Your task to perform on an android device: change notifications settings Image 0: 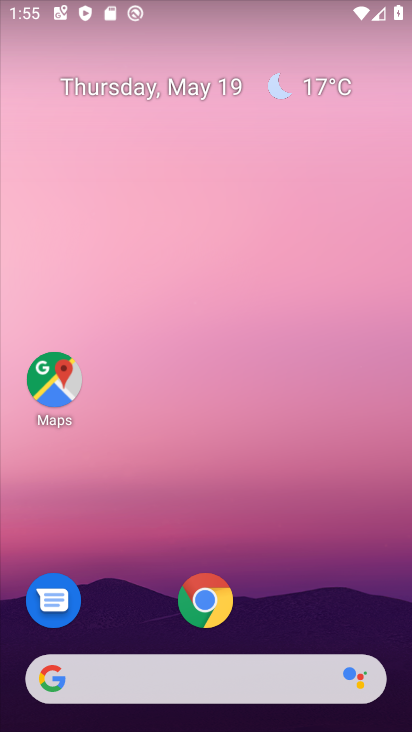
Step 0: drag from (306, 609) to (265, 368)
Your task to perform on an android device: change notifications settings Image 1: 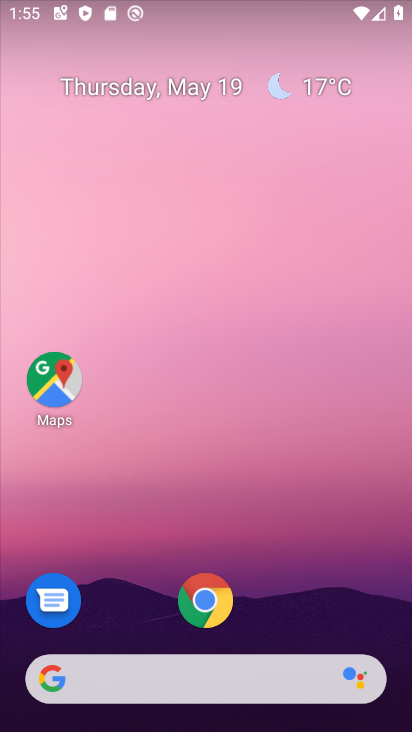
Step 1: drag from (326, 591) to (318, 207)
Your task to perform on an android device: change notifications settings Image 2: 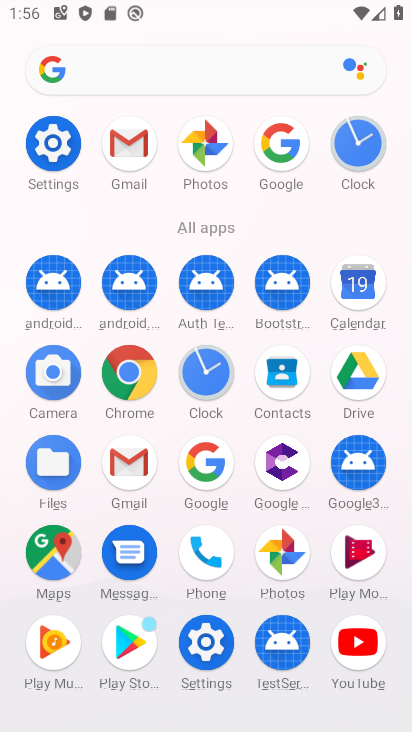
Step 2: click (208, 642)
Your task to perform on an android device: change notifications settings Image 3: 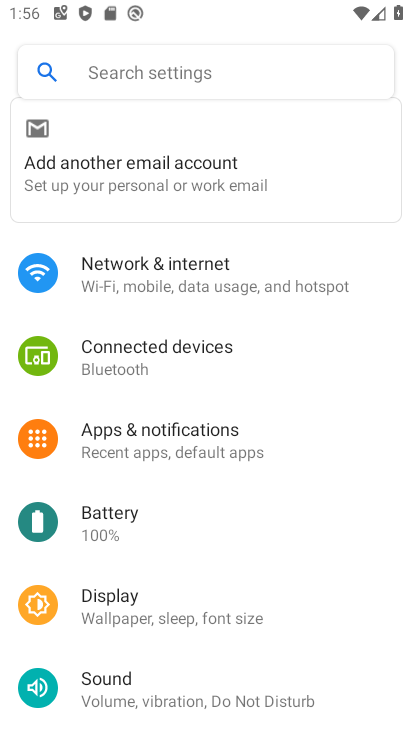
Step 3: drag from (162, 661) to (150, 392)
Your task to perform on an android device: change notifications settings Image 4: 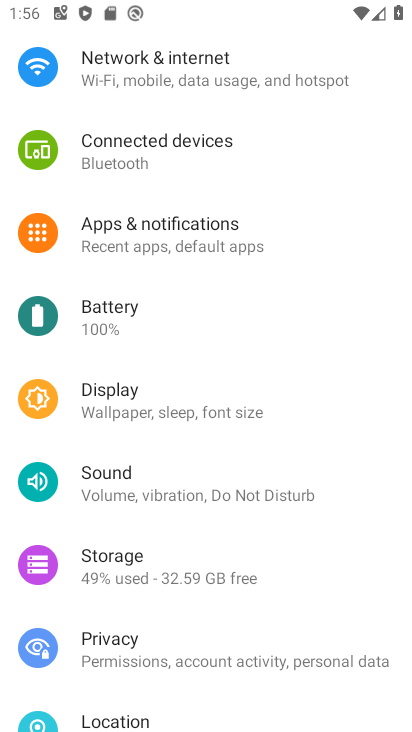
Step 4: click (131, 239)
Your task to perform on an android device: change notifications settings Image 5: 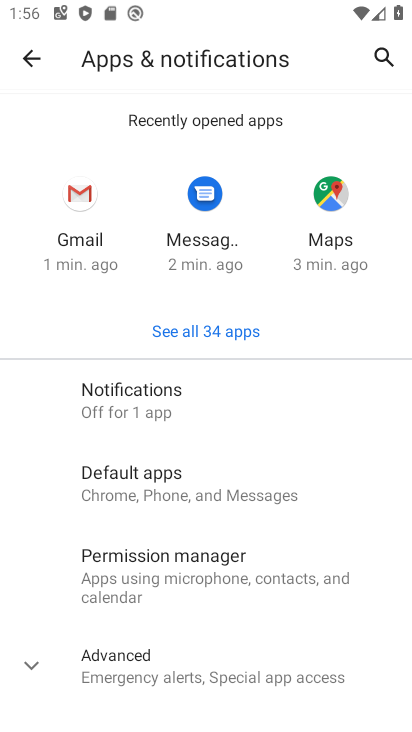
Step 5: click (100, 411)
Your task to perform on an android device: change notifications settings Image 6: 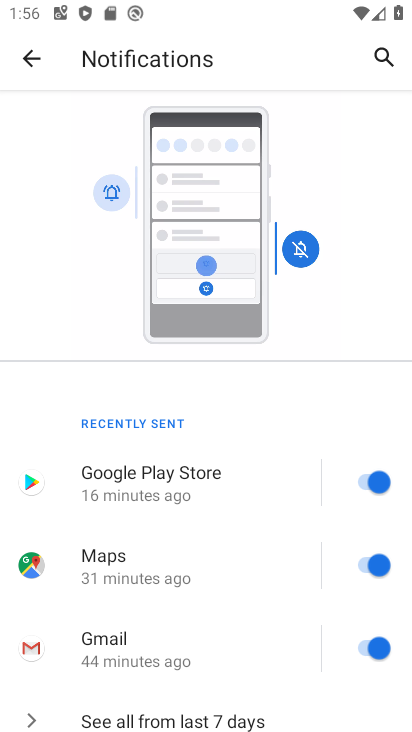
Step 6: drag from (219, 595) to (226, 296)
Your task to perform on an android device: change notifications settings Image 7: 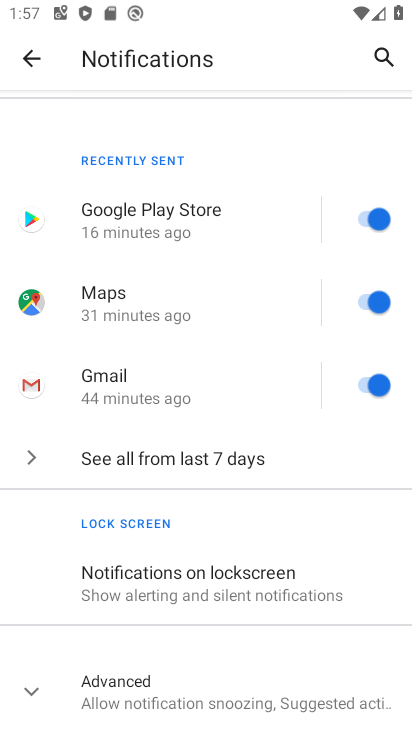
Step 7: click (216, 685)
Your task to perform on an android device: change notifications settings Image 8: 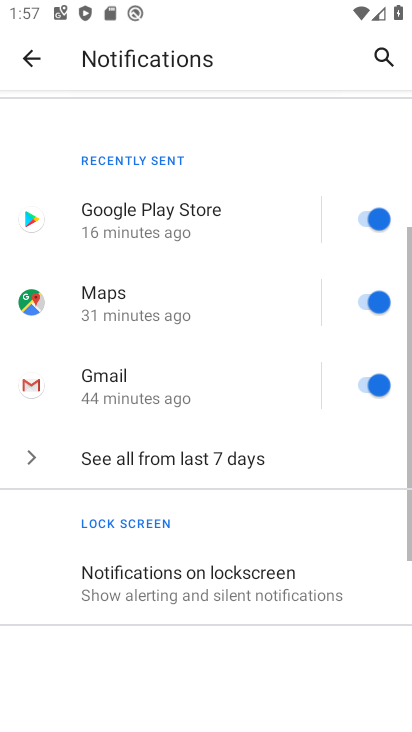
Step 8: drag from (210, 669) to (203, 281)
Your task to perform on an android device: change notifications settings Image 9: 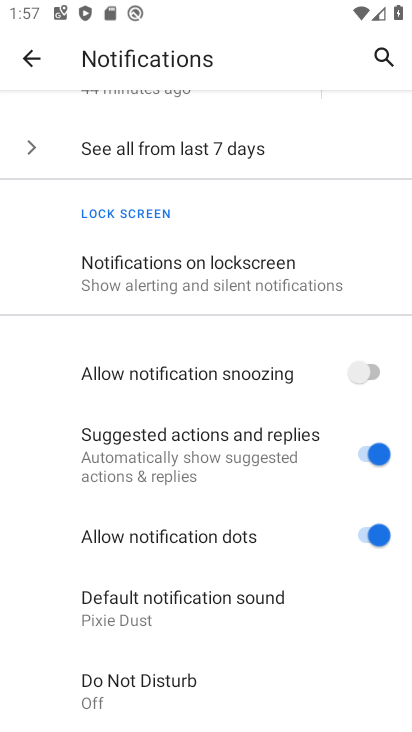
Step 9: click (373, 438)
Your task to perform on an android device: change notifications settings Image 10: 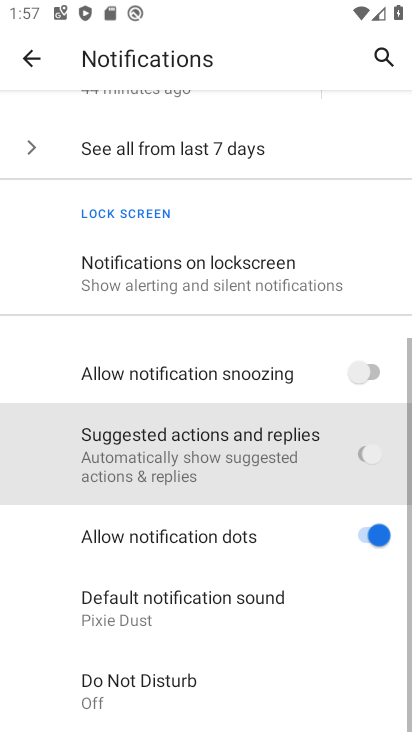
Step 10: click (366, 371)
Your task to perform on an android device: change notifications settings Image 11: 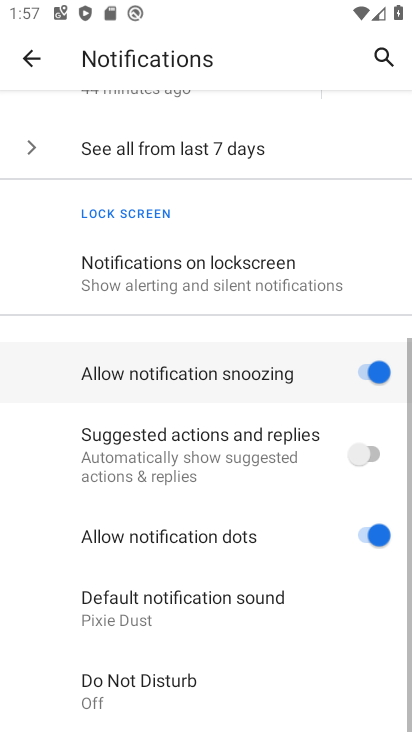
Step 11: click (372, 532)
Your task to perform on an android device: change notifications settings Image 12: 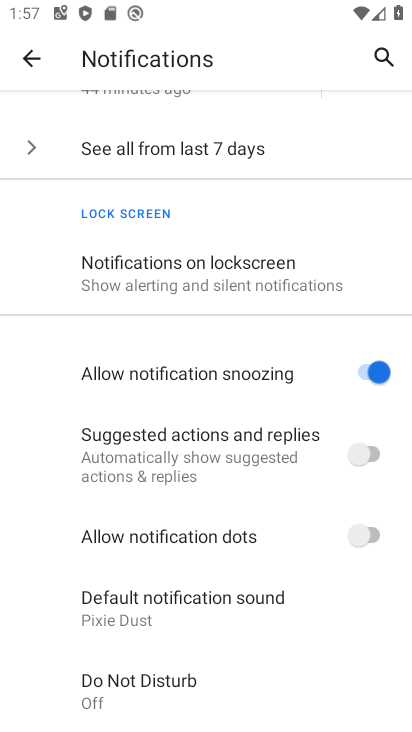
Step 12: task complete